Your task to perform on an android device: check the backup settings in the google photos Image 0: 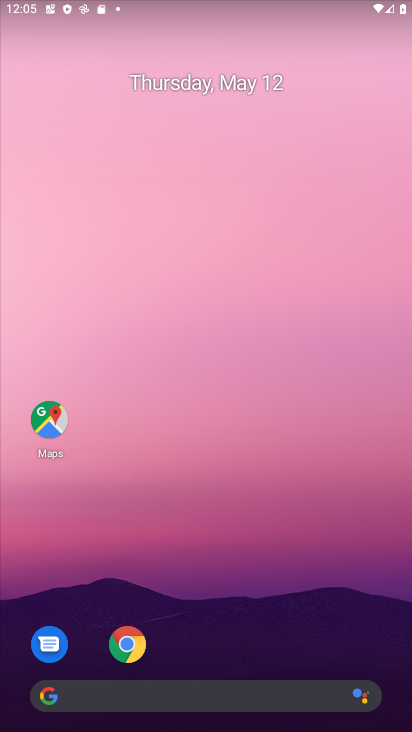
Step 0: drag from (287, 599) to (344, 35)
Your task to perform on an android device: check the backup settings in the google photos Image 1: 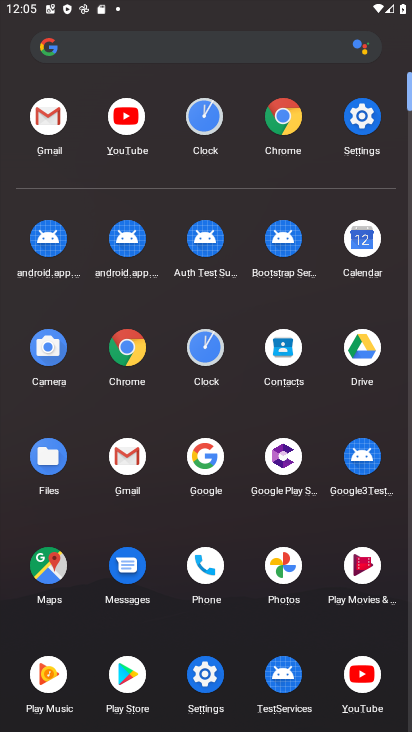
Step 1: click (280, 578)
Your task to perform on an android device: check the backup settings in the google photos Image 2: 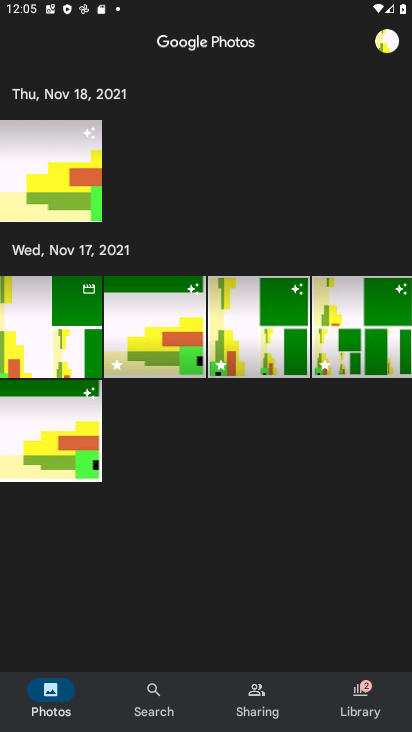
Step 2: click (381, 43)
Your task to perform on an android device: check the backup settings in the google photos Image 3: 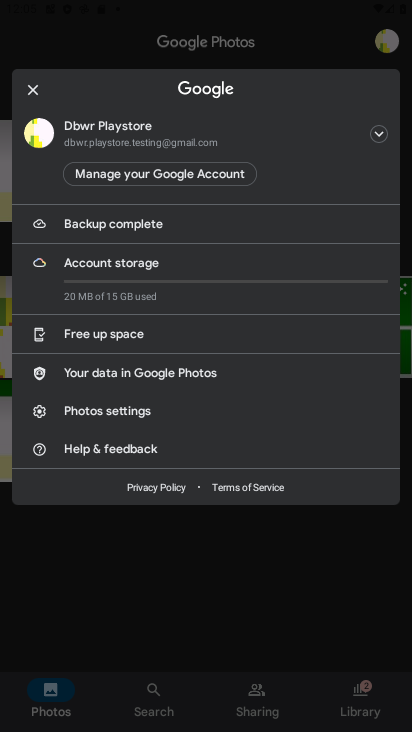
Step 3: click (272, 233)
Your task to perform on an android device: check the backup settings in the google photos Image 4: 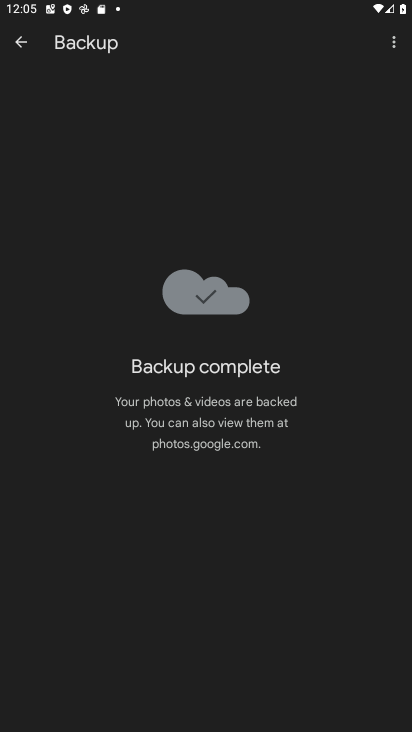
Step 4: task complete